Your task to perform on an android device: read, delete, or share a saved page in the chrome app Image 0: 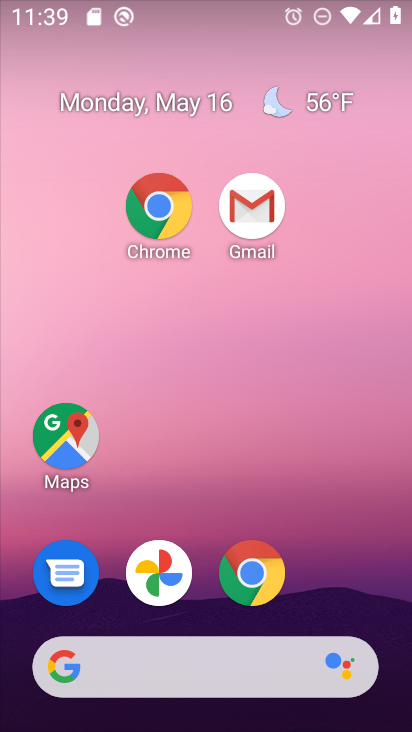
Step 0: drag from (370, 301) to (322, 150)
Your task to perform on an android device: read, delete, or share a saved page in the chrome app Image 1: 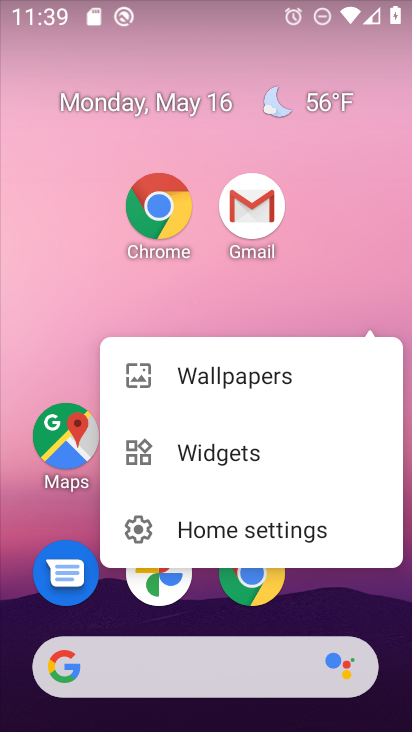
Step 1: drag from (260, 190) to (248, 52)
Your task to perform on an android device: read, delete, or share a saved page in the chrome app Image 2: 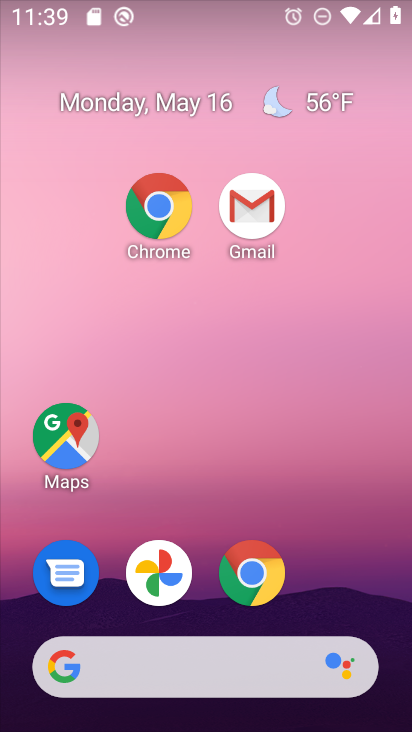
Step 2: click (185, 16)
Your task to perform on an android device: read, delete, or share a saved page in the chrome app Image 3: 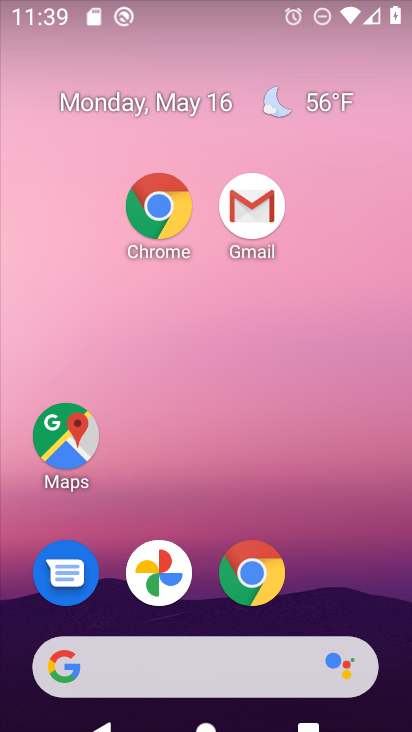
Step 3: drag from (194, 0) to (268, 262)
Your task to perform on an android device: read, delete, or share a saved page in the chrome app Image 4: 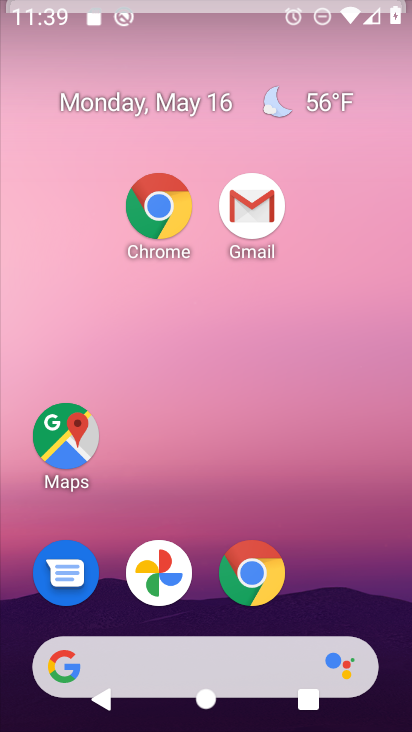
Step 4: drag from (301, 27) to (103, 1)
Your task to perform on an android device: read, delete, or share a saved page in the chrome app Image 5: 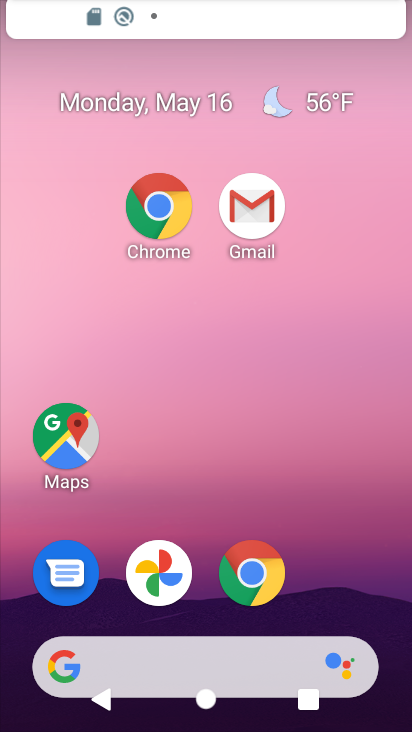
Step 5: drag from (282, 569) to (186, 70)
Your task to perform on an android device: read, delete, or share a saved page in the chrome app Image 6: 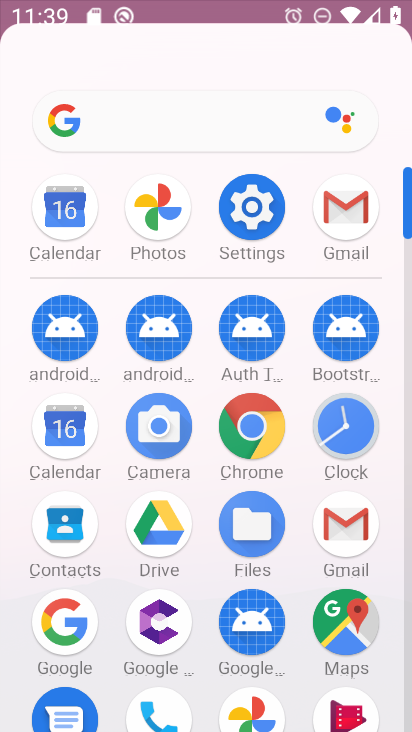
Step 6: drag from (285, 403) to (194, 76)
Your task to perform on an android device: read, delete, or share a saved page in the chrome app Image 7: 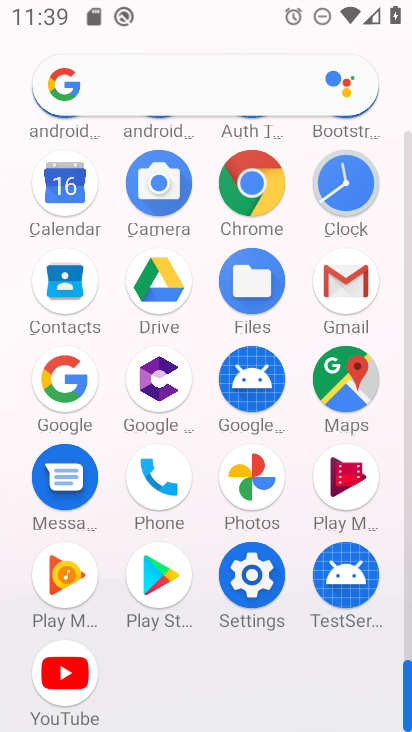
Step 7: click (253, 193)
Your task to perform on an android device: read, delete, or share a saved page in the chrome app Image 8: 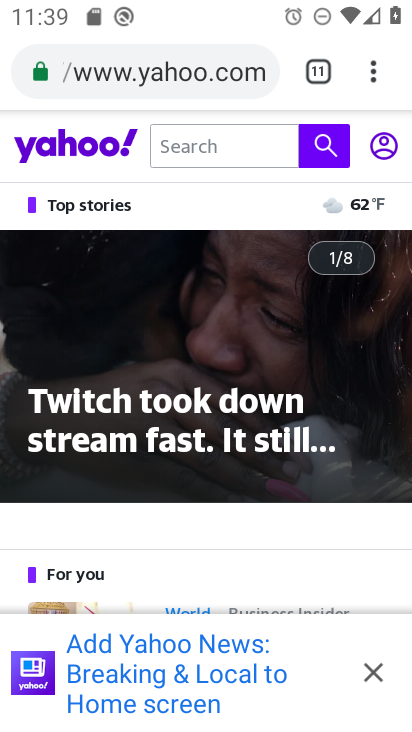
Step 8: click (377, 76)
Your task to perform on an android device: read, delete, or share a saved page in the chrome app Image 9: 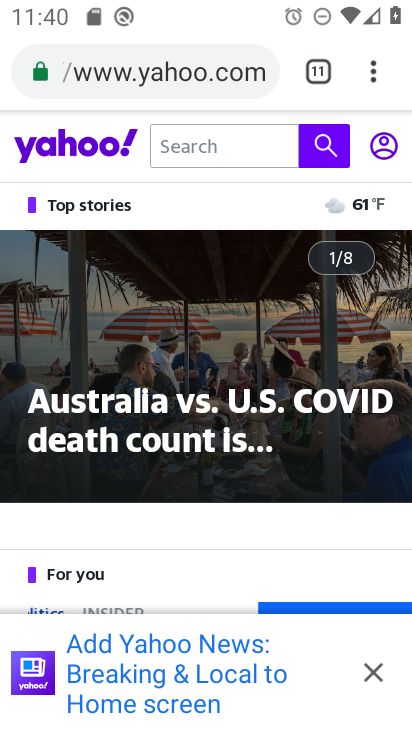
Step 9: task complete